Your task to perform on an android device: Is it going to rain today? Image 0: 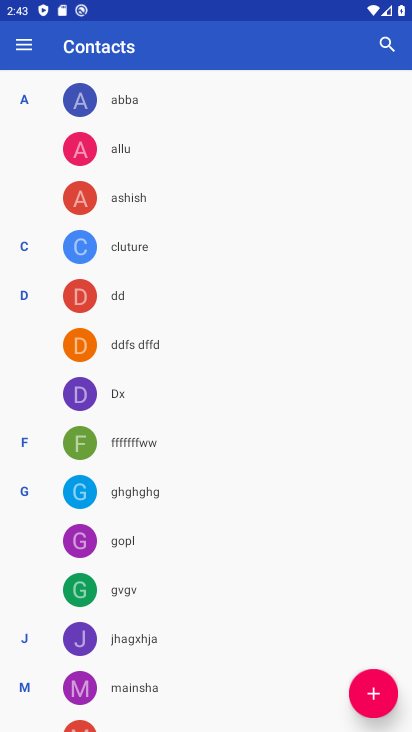
Step 0: press home button
Your task to perform on an android device: Is it going to rain today? Image 1: 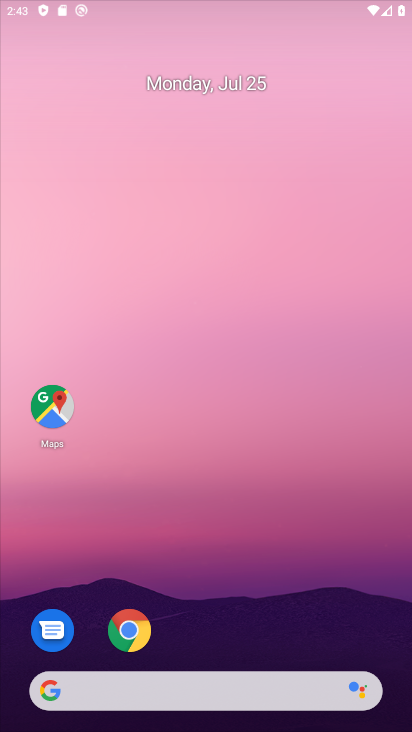
Step 1: drag from (309, 624) to (315, 102)
Your task to perform on an android device: Is it going to rain today? Image 2: 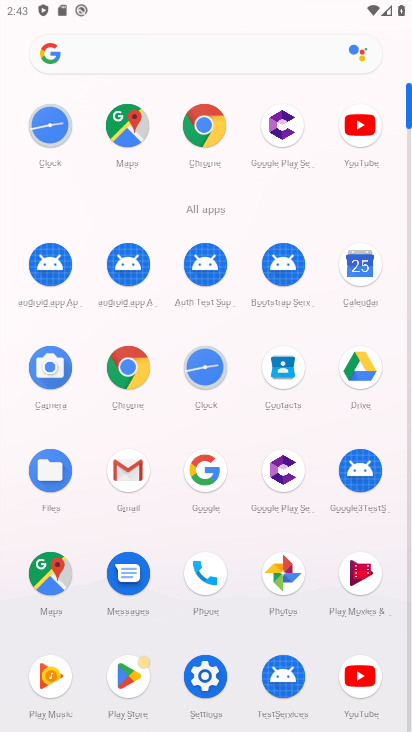
Step 2: click (207, 135)
Your task to perform on an android device: Is it going to rain today? Image 3: 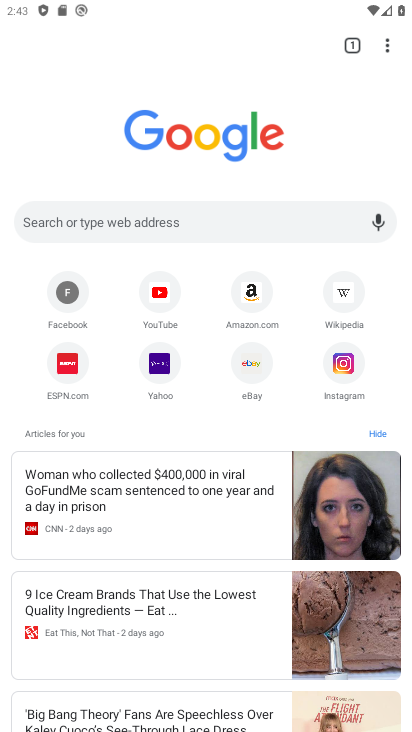
Step 3: click (219, 225)
Your task to perform on an android device: Is it going to rain today? Image 4: 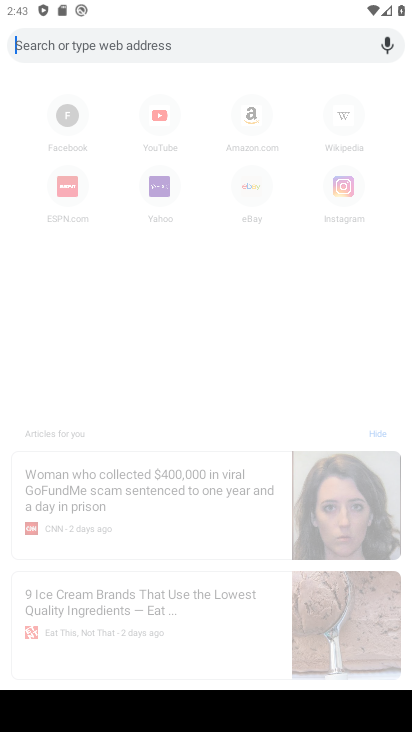
Step 4: type "weather"
Your task to perform on an android device: Is it going to rain today? Image 5: 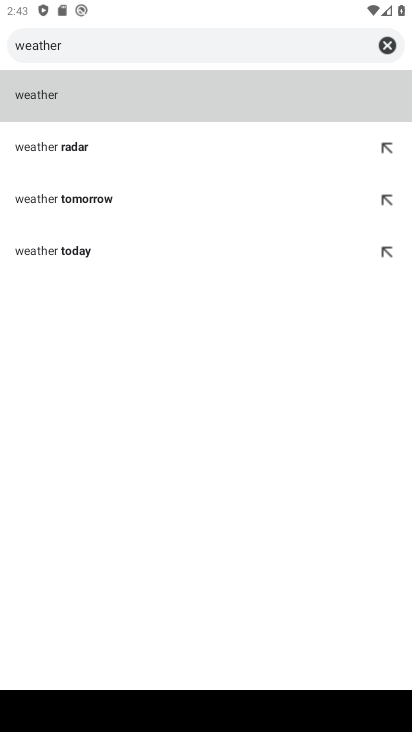
Step 5: click (41, 103)
Your task to perform on an android device: Is it going to rain today? Image 6: 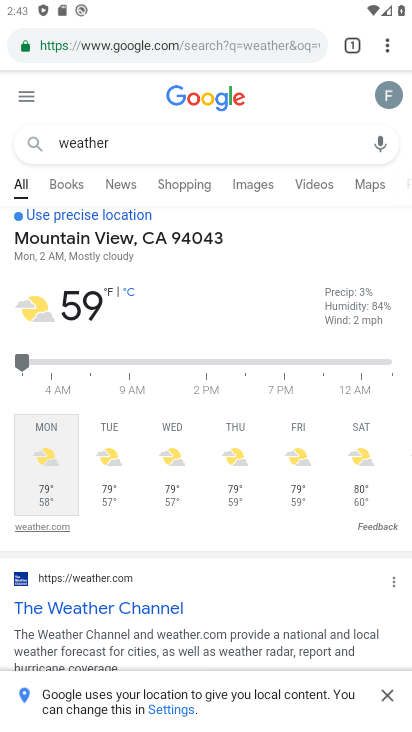
Step 6: task complete